Your task to perform on an android device: Show me popular games on the Play Store Image 0: 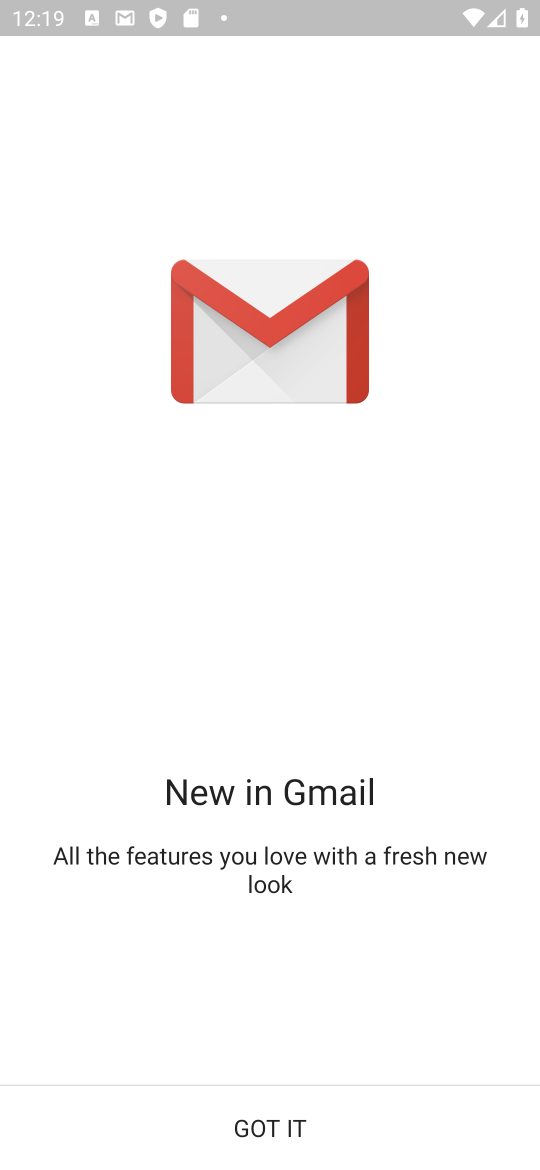
Step 0: press home button
Your task to perform on an android device: Show me popular games on the Play Store Image 1: 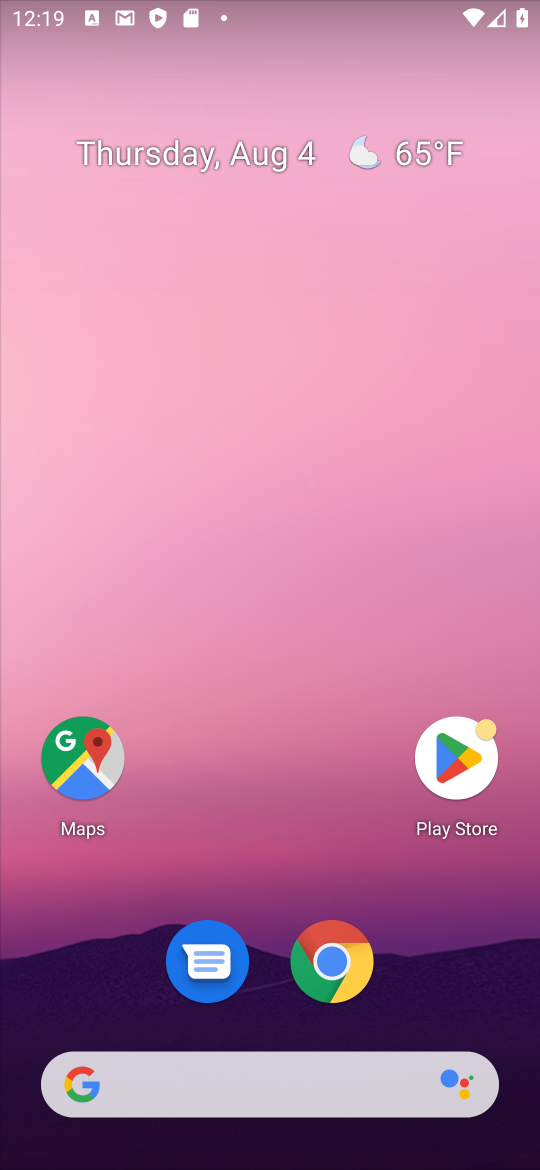
Step 1: drag from (343, 650) to (367, 590)
Your task to perform on an android device: Show me popular games on the Play Store Image 2: 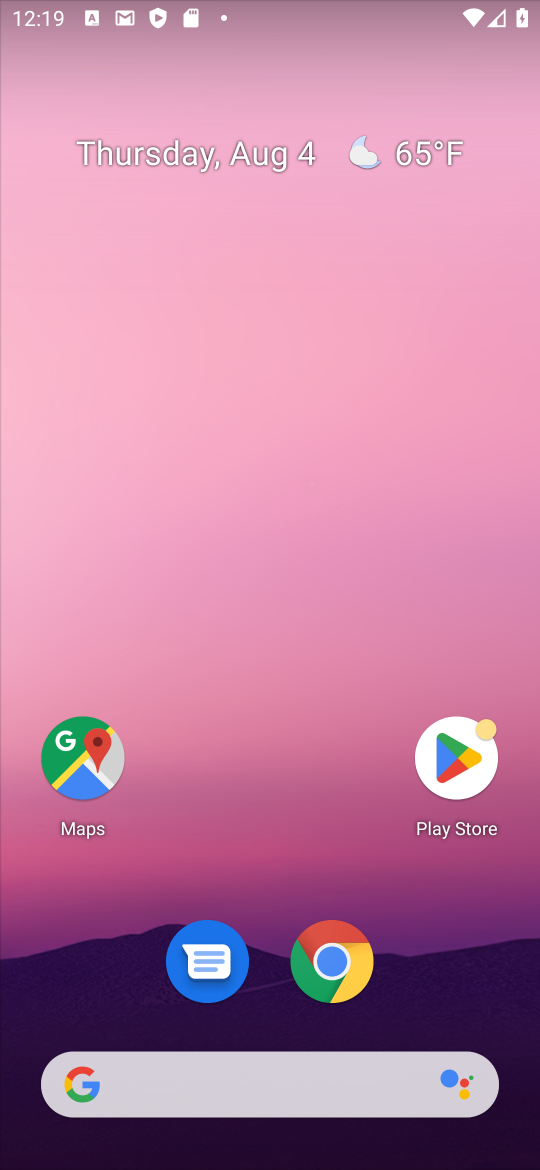
Step 2: click (450, 758)
Your task to perform on an android device: Show me popular games on the Play Store Image 3: 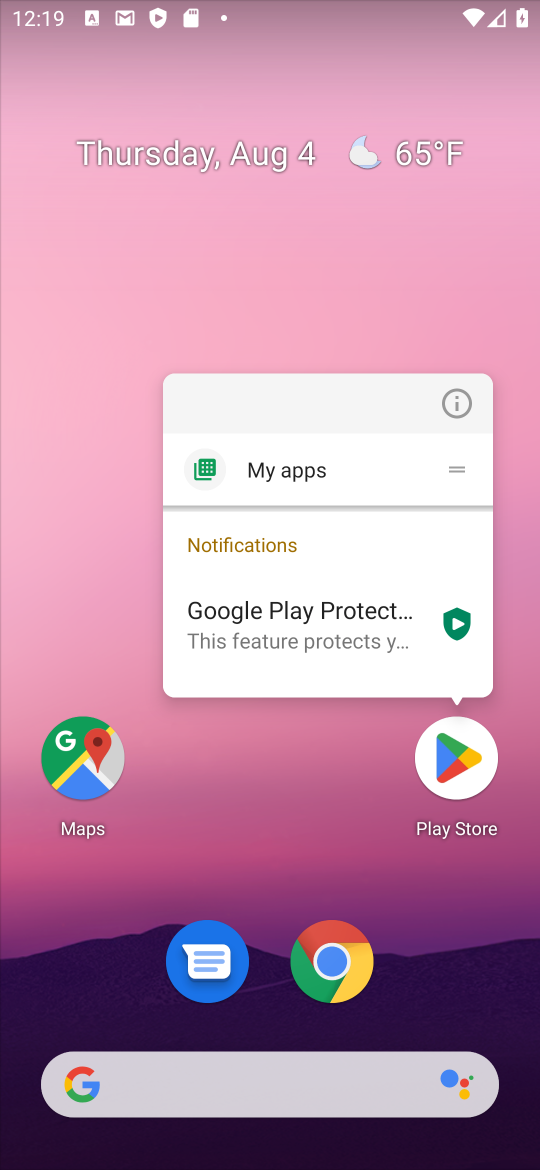
Step 3: click (450, 761)
Your task to perform on an android device: Show me popular games on the Play Store Image 4: 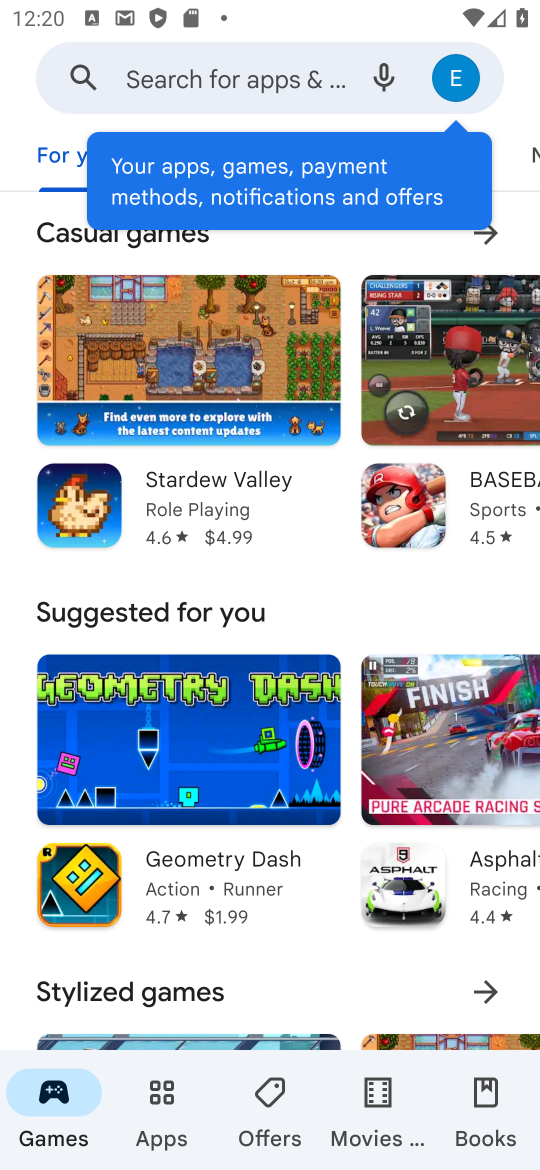
Step 4: task complete